Your task to perform on an android device: install app "DoorDash - Dasher" Image 0: 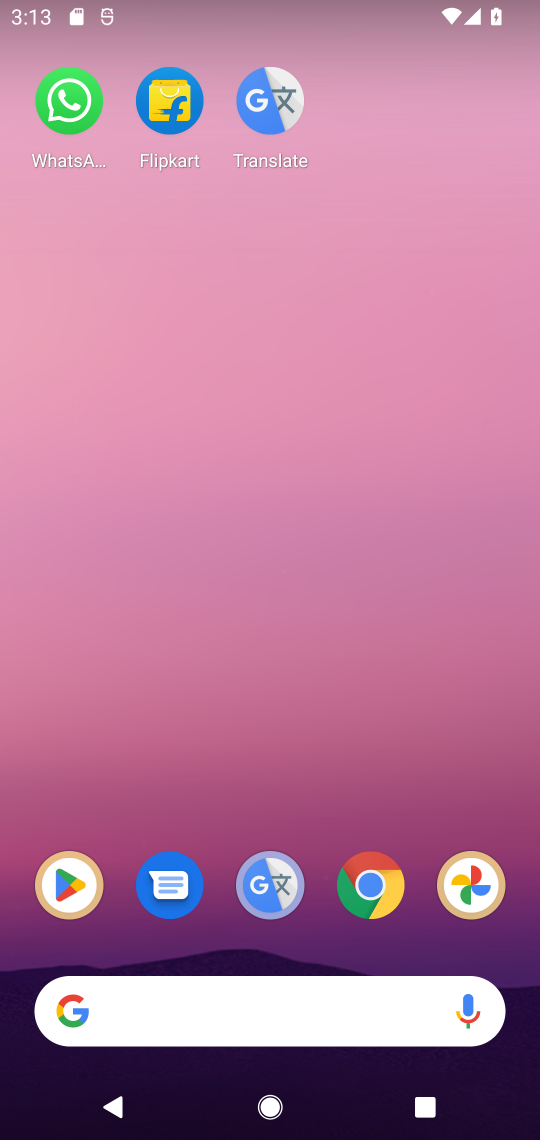
Step 0: click (76, 878)
Your task to perform on an android device: install app "DoorDash - Dasher" Image 1: 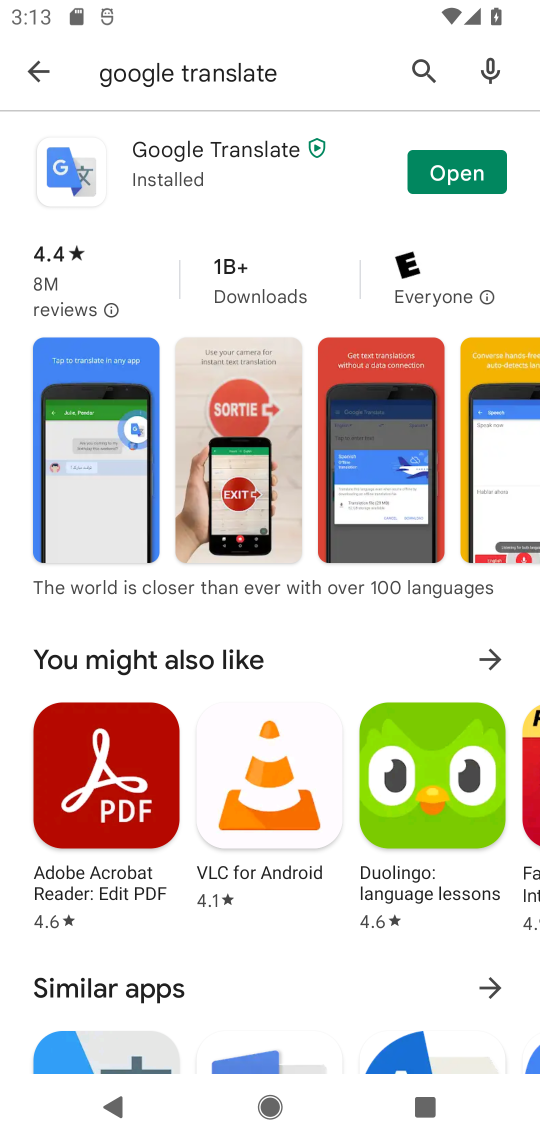
Step 1: click (426, 70)
Your task to perform on an android device: install app "DoorDash - Dasher" Image 2: 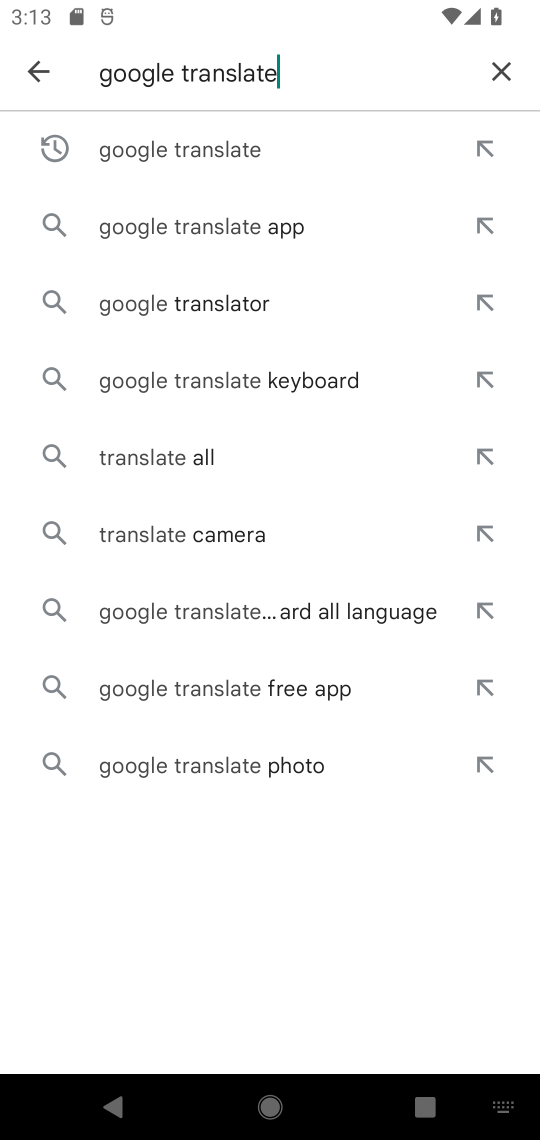
Step 2: click (503, 68)
Your task to perform on an android device: install app "DoorDash - Dasher" Image 3: 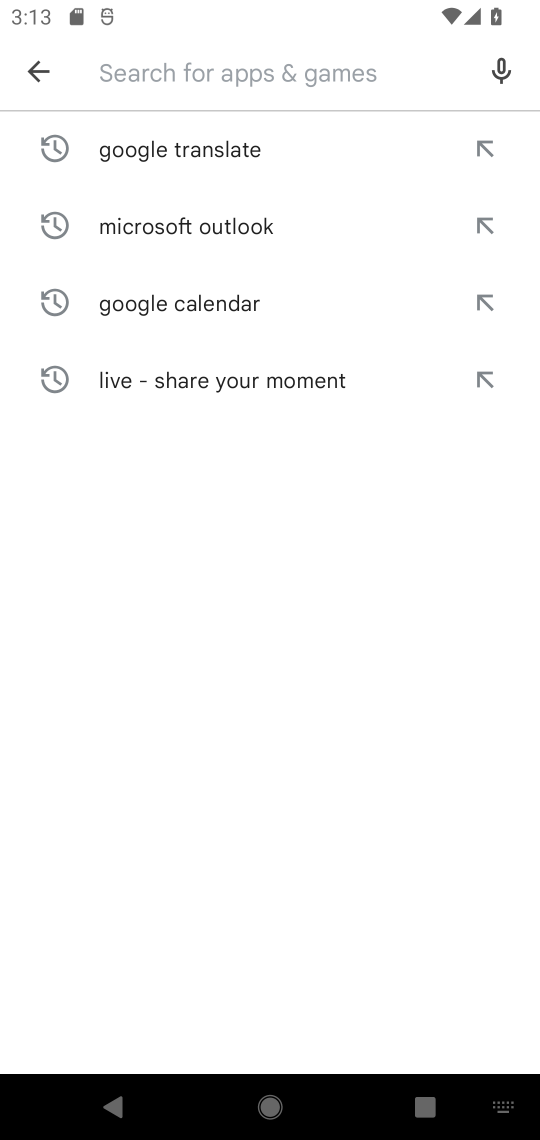
Step 3: type "DoorDash - Dasher"
Your task to perform on an android device: install app "DoorDash - Dasher" Image 4: 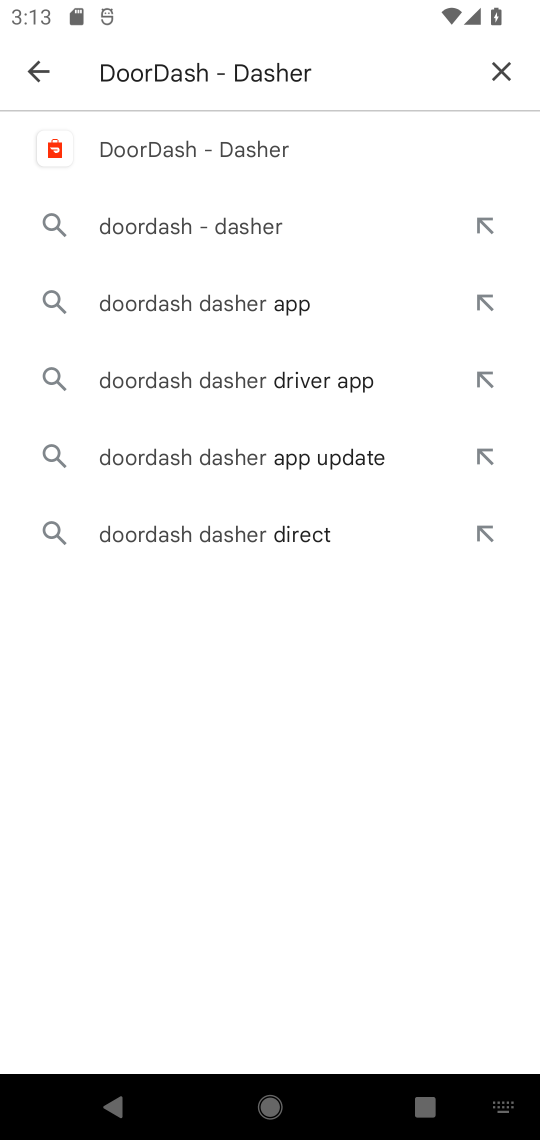
Step 4: click (201, 138)
Your task to perform on an android device: install app "DoorDash - Dasher" Image 5: 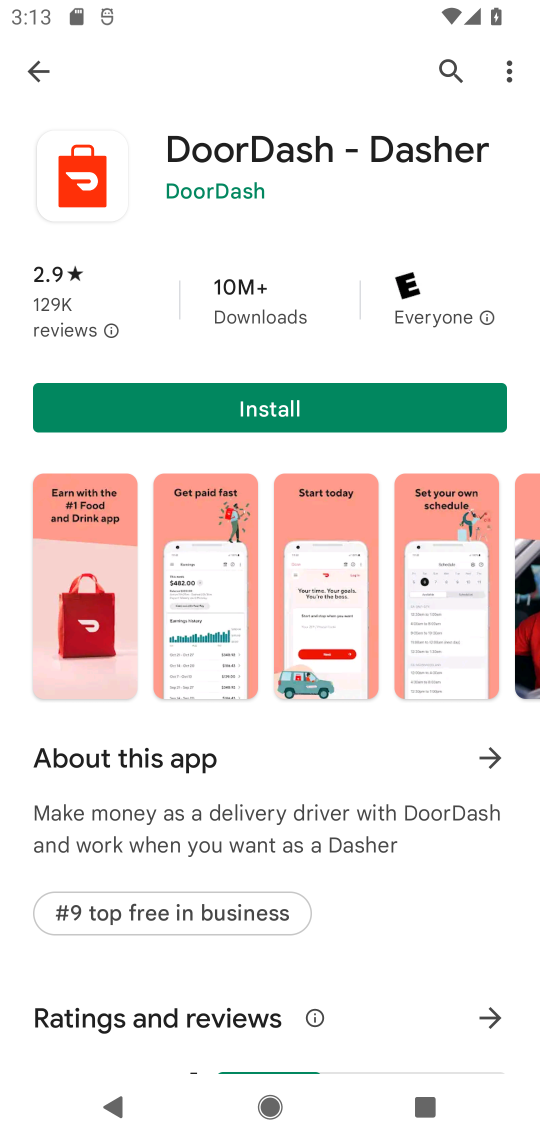
Step 5: click (149, 418)
Your task to perform on an android device: install app "DoorDash - Dasher" Image 6: 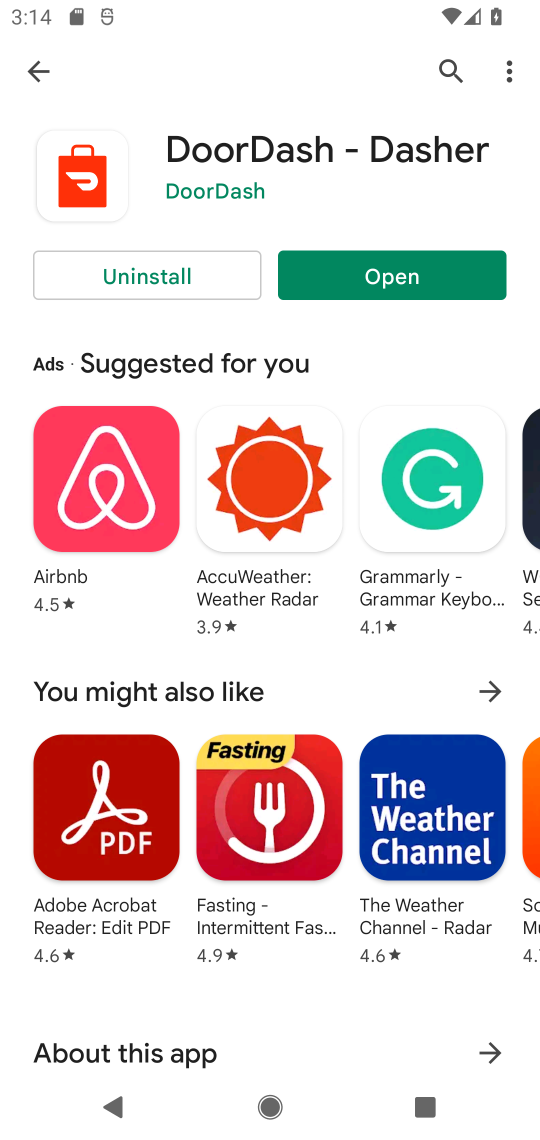
Step 6: task complete